Your task to perform on an android device: turn off notifications in google photos Image 0: 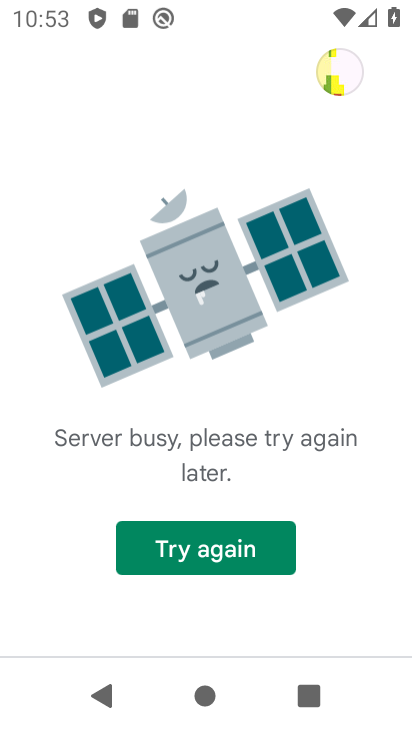
Step 0: press home button
Your task to perform on an android device: turn off notifications in google photos Image 1: 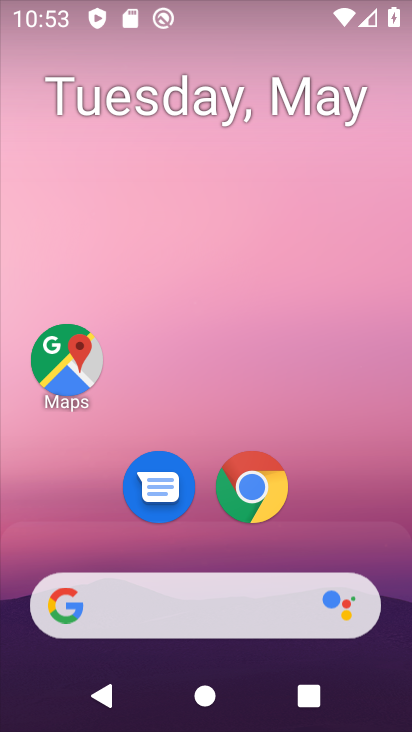
Step 1: drag from (297, 519) to (300, 291)
Your task to perform on an android device: turn off notifications in google photos Image 2: 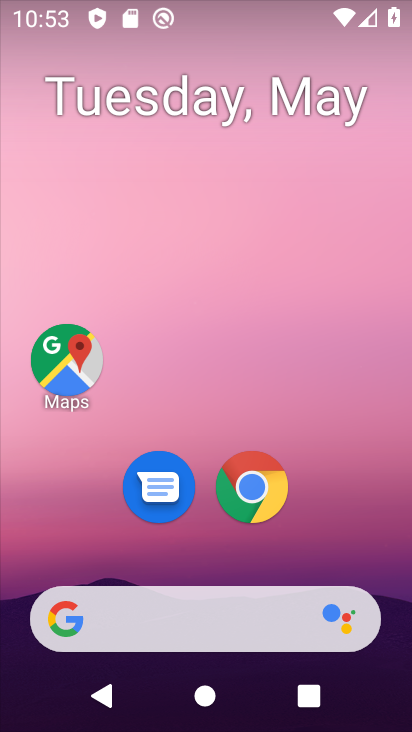
Step 2: drag from (146, 659) to (195, 236)
Your task to perform on an android device: turn off notifications in google photos Image 3: 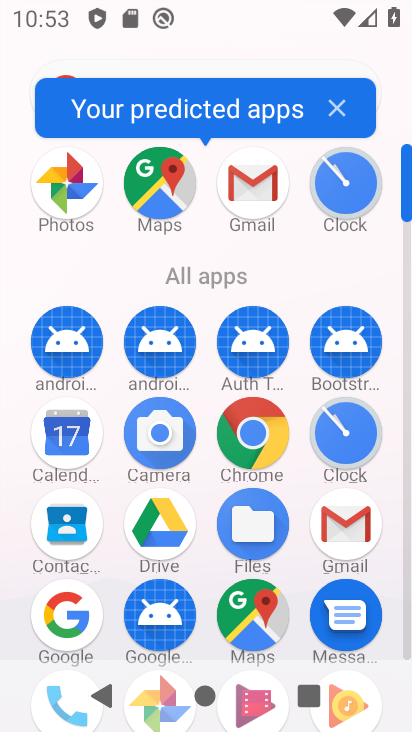
Step 3: drag from (200, 637) to (207, 367)
Your task to perform on an android device: turn off notifications in google photos Image 4: 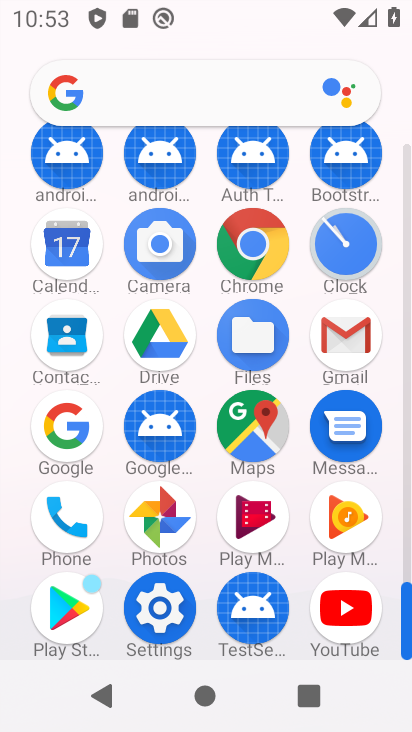
Step 4: click (150, 521)
Your task to perform on an android device: turn off notifications in google photos Image 5: 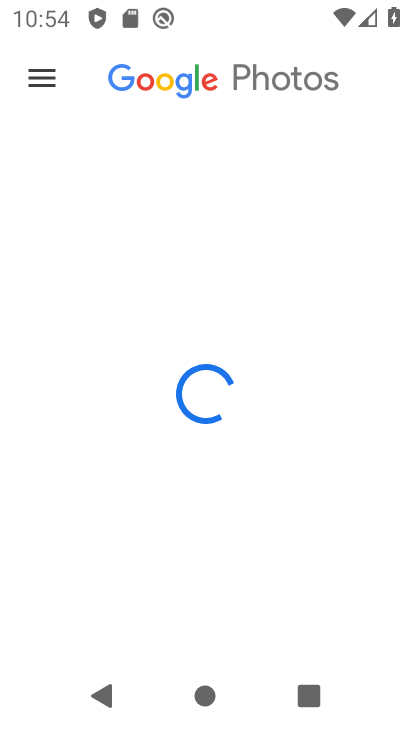
Step 5: click (35, 72)
Your task to perform on an android device: turn off notifications in google photos Image 6: 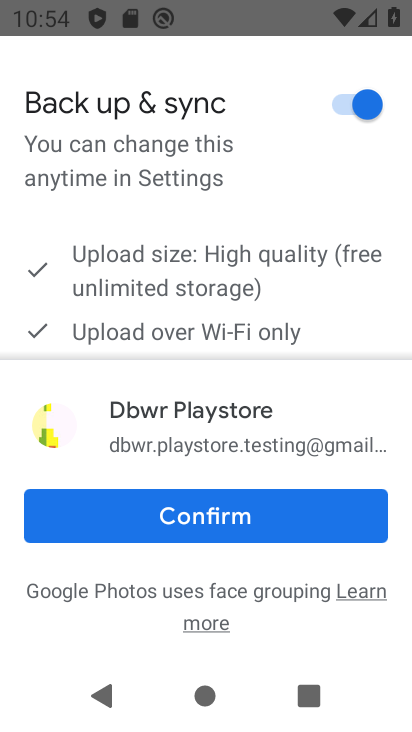
Step 6: click (295, 520)
Your task to perform on an android device: turn off notifications in google photos Image 7: 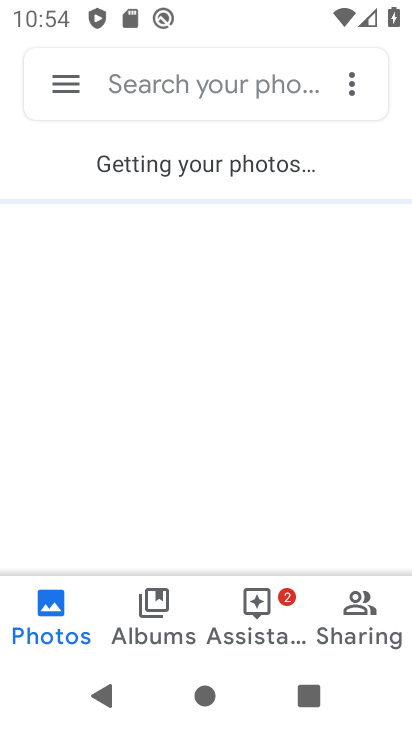
Step 7: click (59, 82)
Your task to perform on an android device: turn off notifications in google photos Image 8: 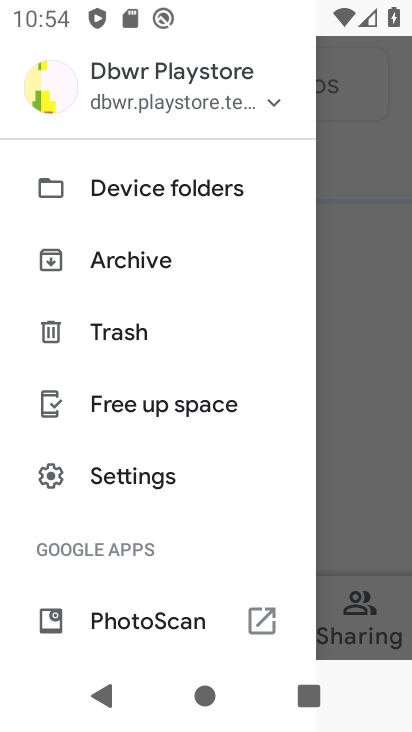
Step 8: click (156, 472)
Your task to perform on an android device: turn off notifications in google photos Image 9: 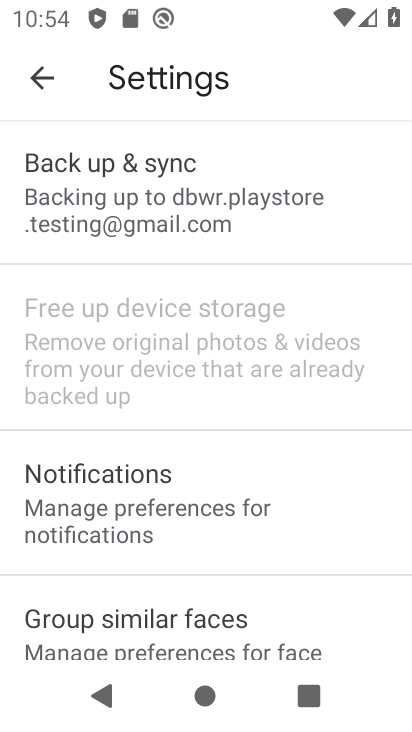
Step 9: click (157, 475)
Your task to perform on an android device: turn off notifications in google photos Image 10: 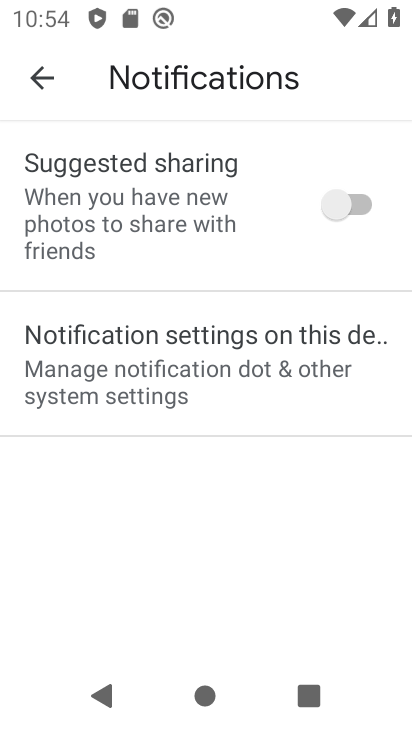
Step 10: click (247, 338)
Your task to perform on an android device: turn off notifications in google photos Image 11: 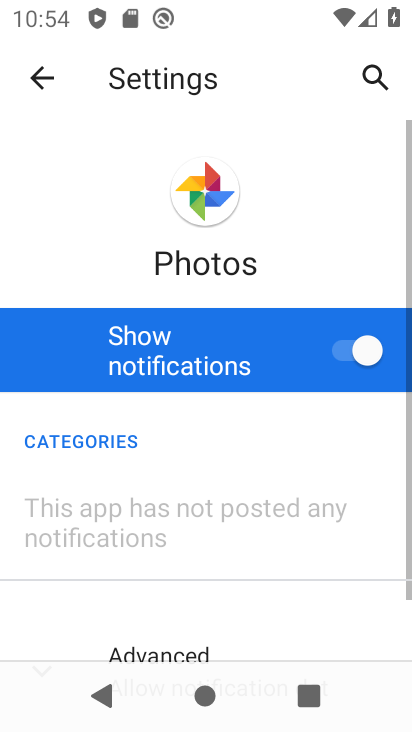
Step 11: click (361, 343)
Your task to perform on an android device: turn off notifications in google photos Image 12: 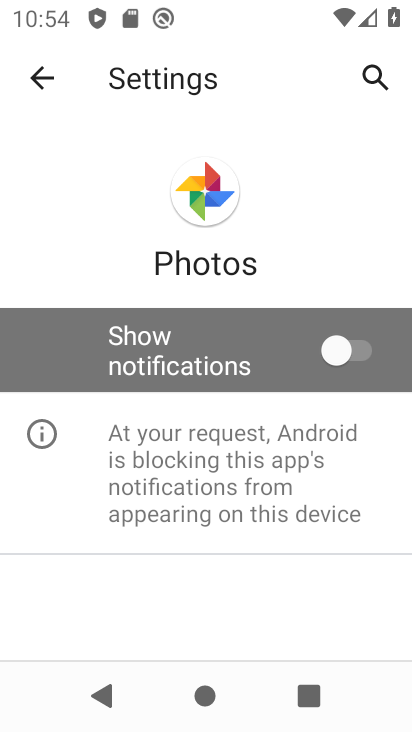
Step 12: task complete